Your task to perform on an android device: show emergency info Image 0: 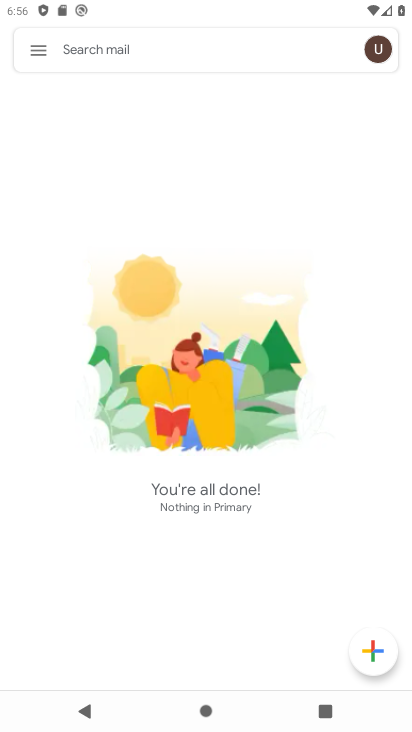
Step 0: press home button
Your task to perform on an android device: show emergency info Image 1: 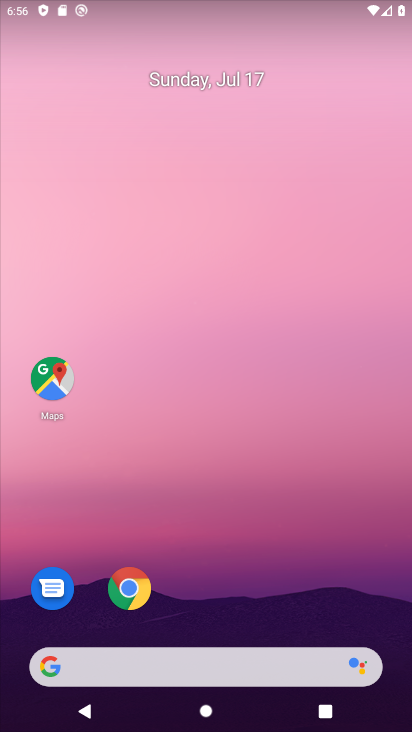
Step 1: drag from (381, 651) to (275, 53)
Your task to perform on an android device: show emergency info Image 2: 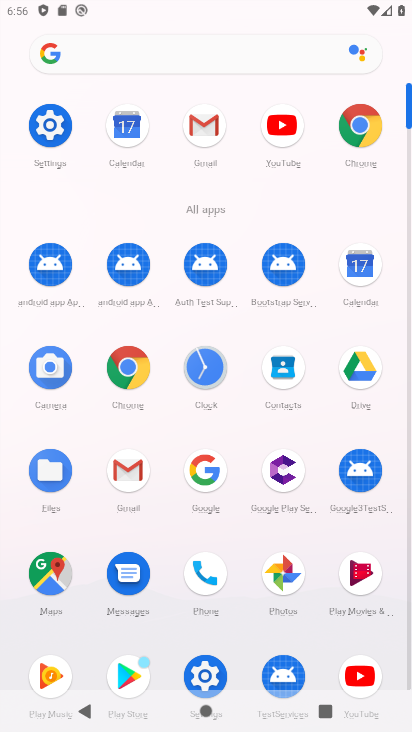
Step 2: click (203, 658)
Your task to perform on an android device: show emergency info Image 3: 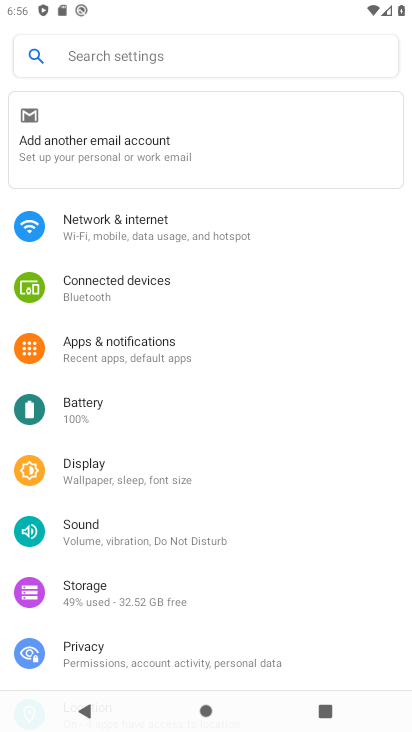
Step 3: drag from (129, 643) to (129, 116)
Your task to perform on an android device: show emergency info Image 4: 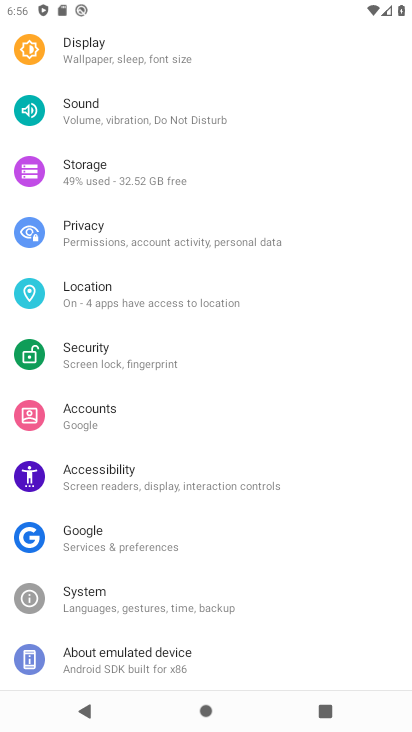
Step 4: click (132, 649)
Your task to perform on an android device: show emergency info Image 5: 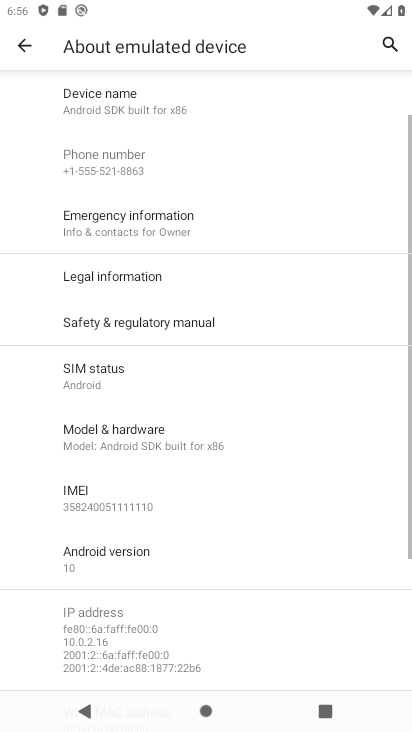
Step 5: click (145, 232)
Your task to perform on an android device: show emergency info Image 6: 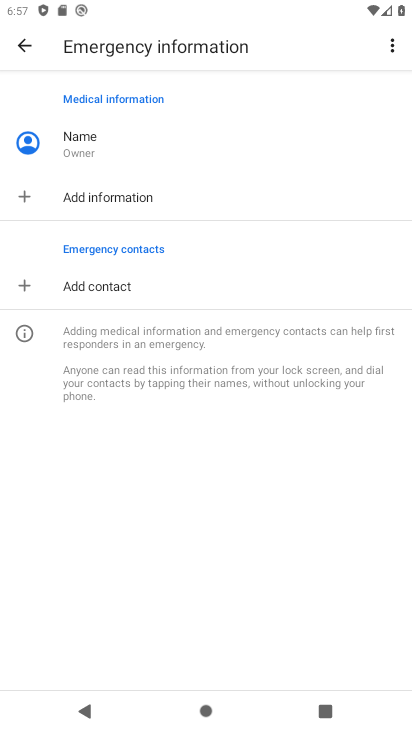
Step 6: task complete